Your task to perform on an android device: open device folders in google photos Image 0: 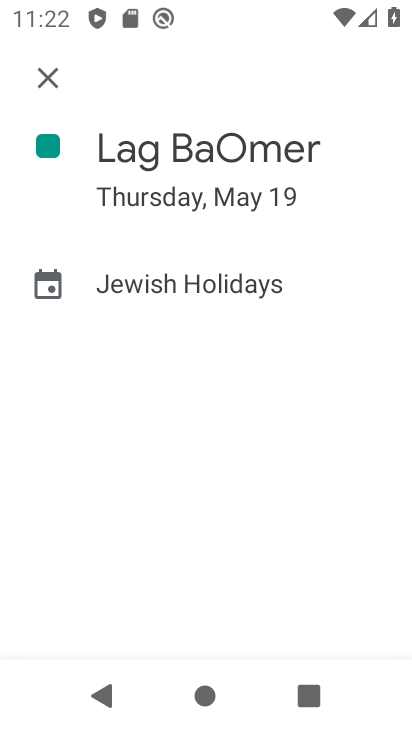
Step 0: click (50, 63)
Your task to perform on an android device: open device folders in google photos Image 1: 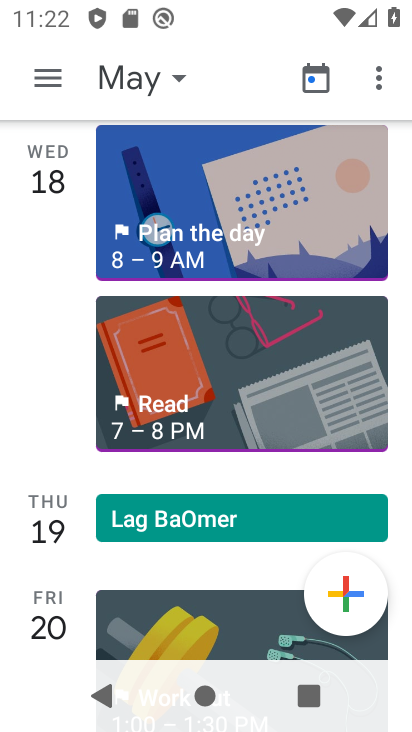
Step 1: click (49, 65)
Your task to perform on an android device: open device folders in google photos Image 2: 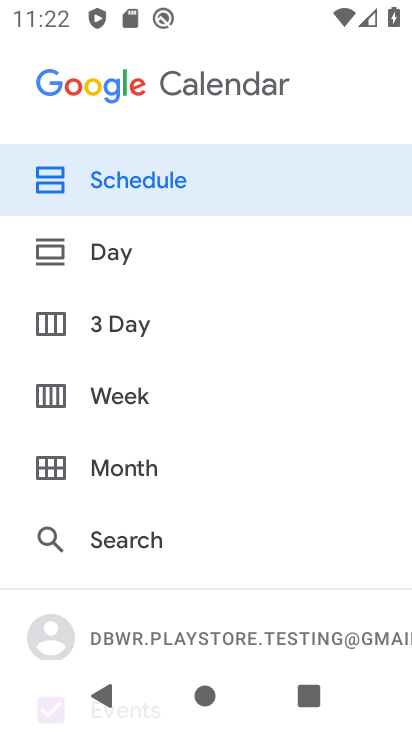
Step 2: press back button
Your task to perform on an android device: open device folders in google photos Image 3: 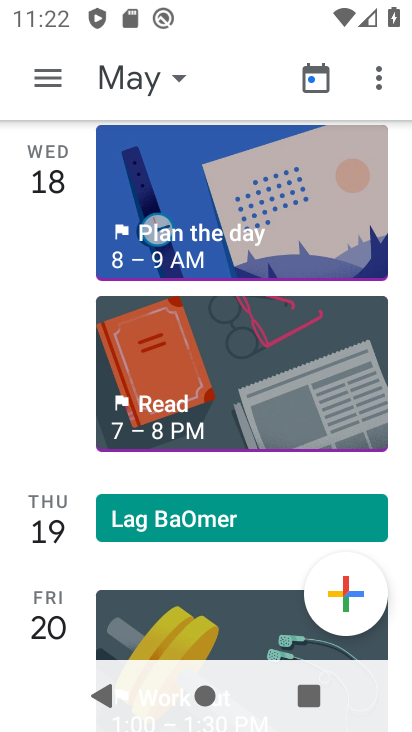
Step 3: press back button
Your task to perform on an android device: open device folders in google photos Image 4: 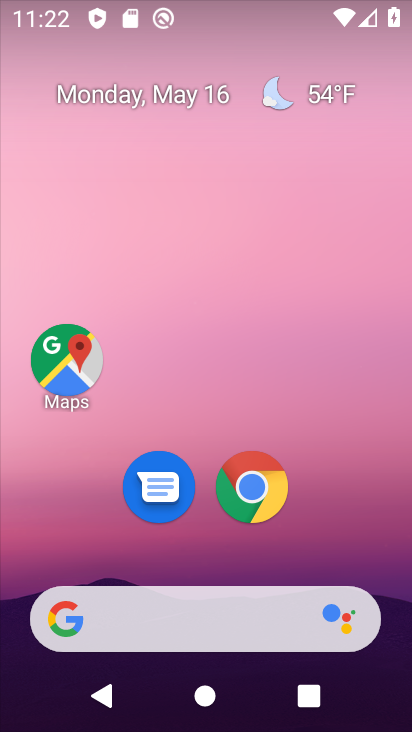
Step 4: drag from (196, 509) to (313, 4)
Your task to perform on an android device: open device folders in google photos Image 5: 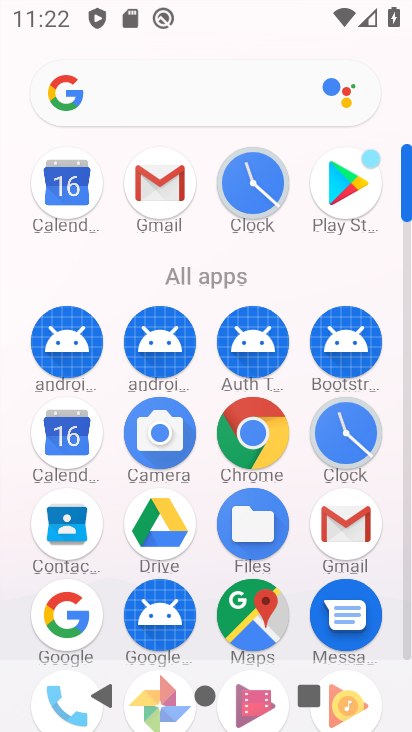
Step 5: drag from (281, 595) to (322, 64)
Your task to perform on an android device: open device folders in google photos Image 6: 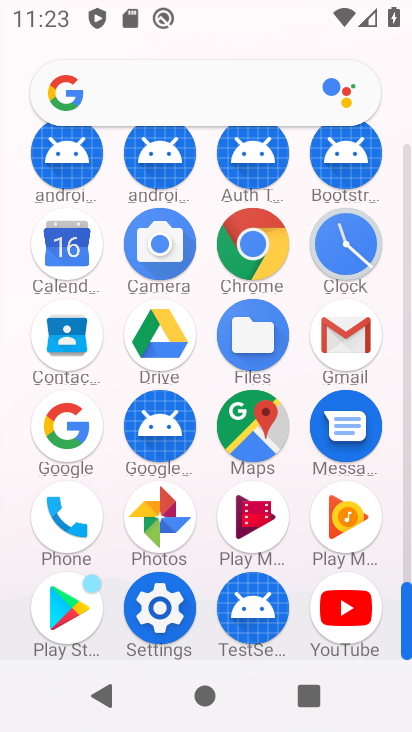
Step 6: click (160, 535)
Your task to perform on an android device: open device folders in google photos Image 7: 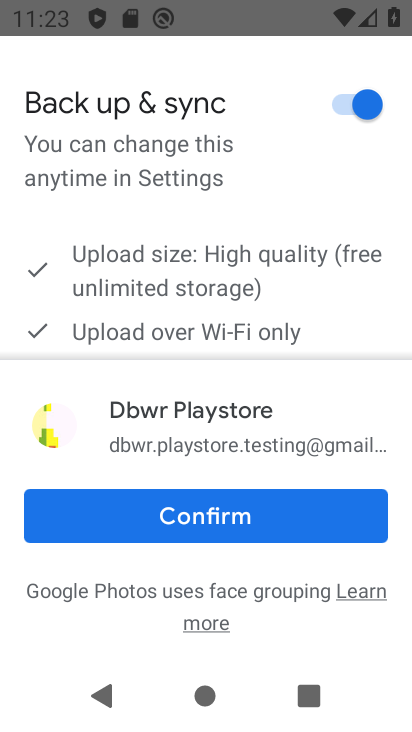
Step 7: click (187, 518)
Your task to perform on an android device: open device folders in google photos Image 8: 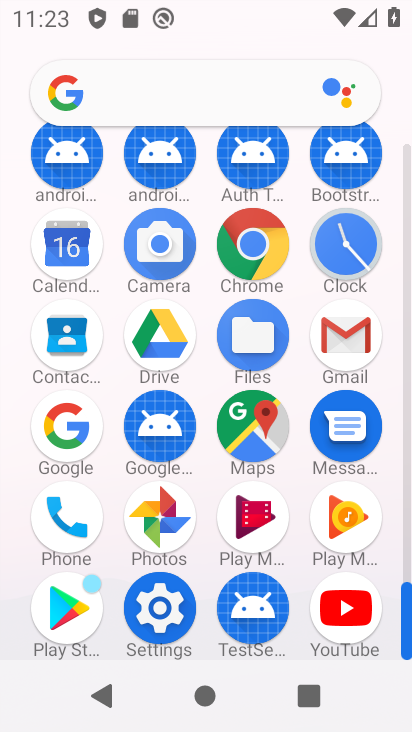
Step 8: click (165, 517)
Your task to perform on an android device: open device folders in google photos Image 9: 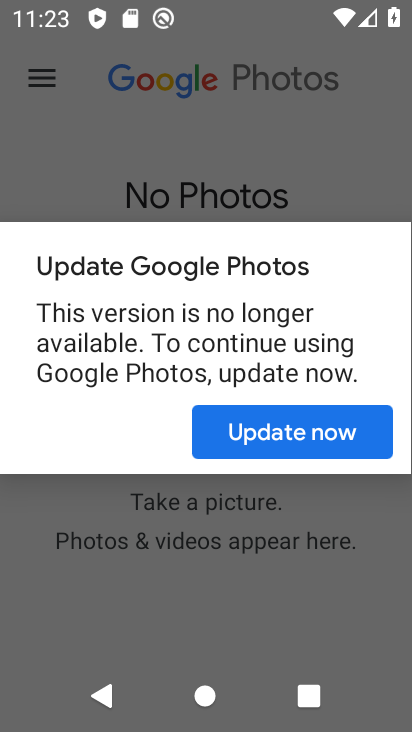
Step 9: click (256, 434)
Your task to perform on an android device: open device folders in google photos Image 10: 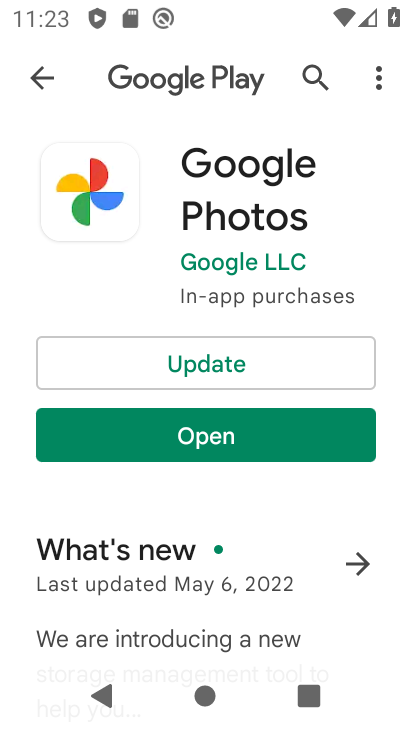
Step 10: click (169, 442)
Your task to perform on an android device: open device folders in google photos Image 11: 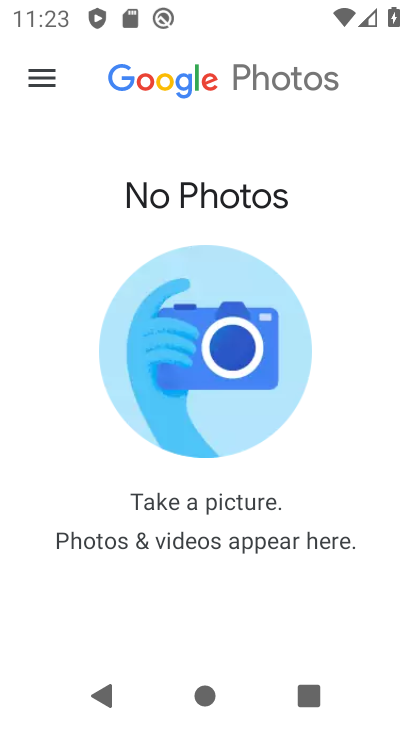
Step 11: click (39, 77)
Your task to perform on an android device: open device folders in google photos Image 12: 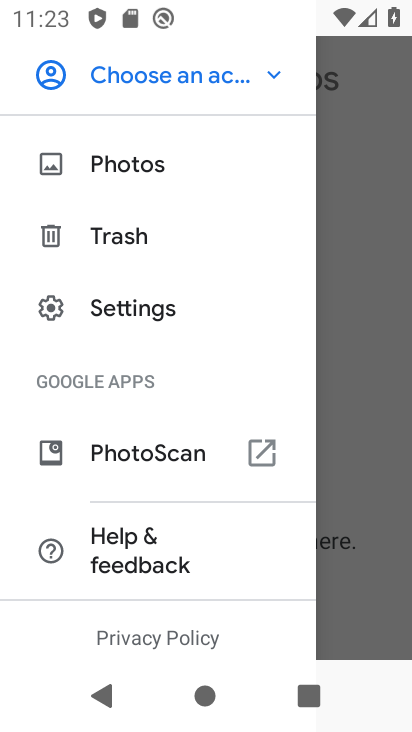
Step 12: task complete